Your task to perform on an android device: Open sound settings Image 0: 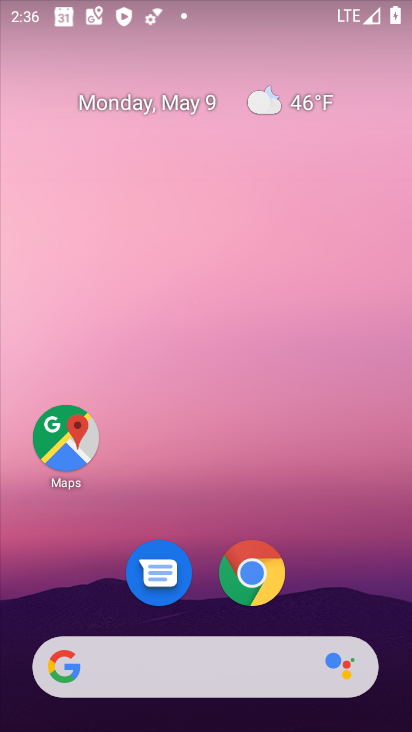
Step 0: drag from (209, 587) to (237, 86)
Your task to perform on an android device: Open sound settings Image 1: 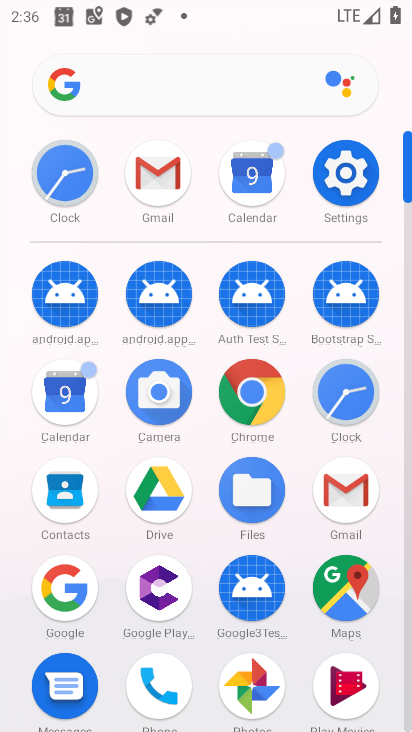
Step 1: click (343, 170)
Your task to perform on an android device: Open sound settings Image 2: 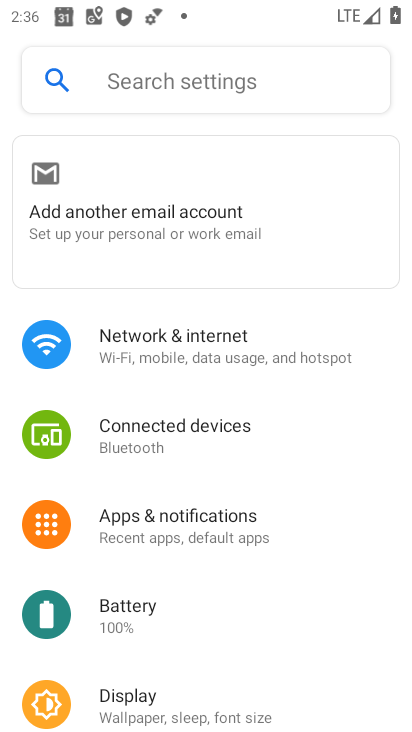
Step 2: drag from (229, 606) to (260, 224)
Your task to perform on an android device: Open sound settings Image 3: 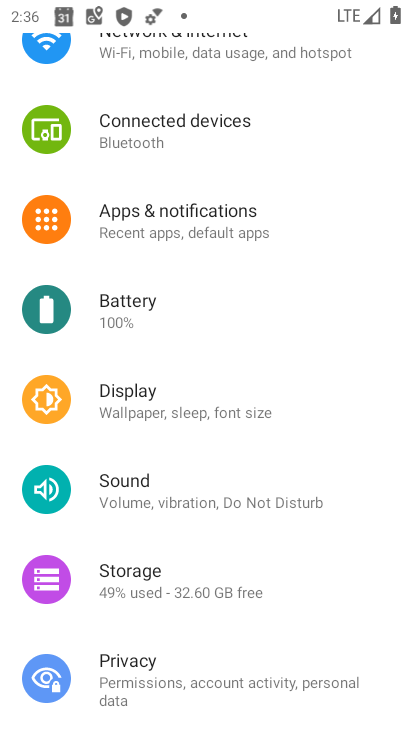
Step 3: click (146, 486)
Your task to perform on an android device: Open sound settings Image 4: 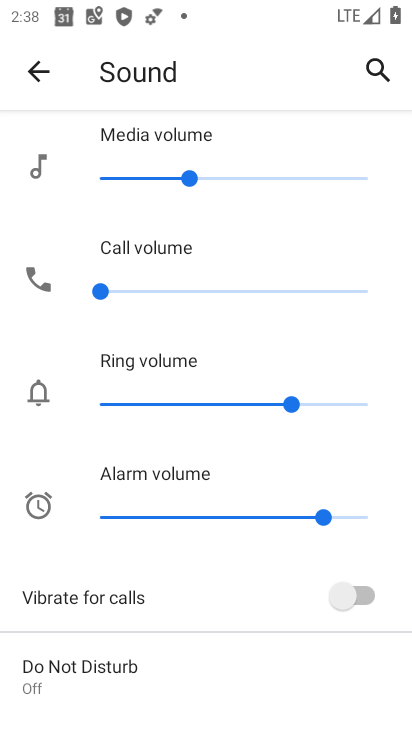
Step 4: task complete